Your task to perform on an android device: visit the assistant section in the google photos Image 0: 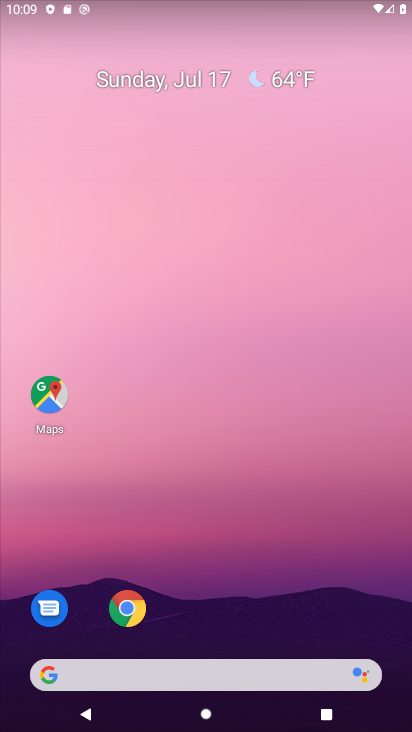
Step 0: drag from (386, 705) to (287, 63)
Your task to perform on an android device: visit the assistant section in the google photos Image 1: 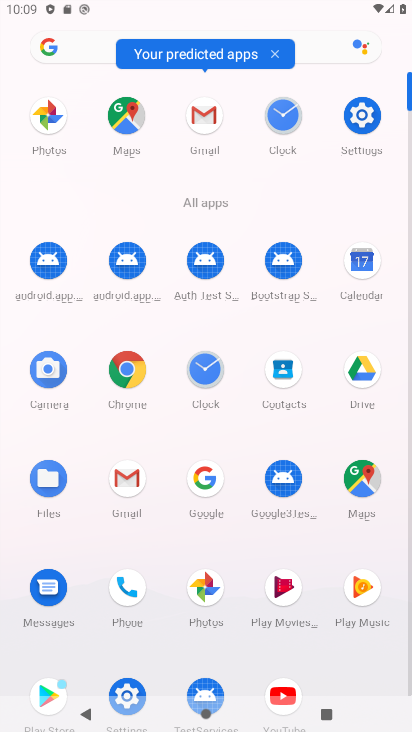
Step 1: click (202, 589)
Your task to perform on an android device: visit the assistant section in the google photos Image 2: 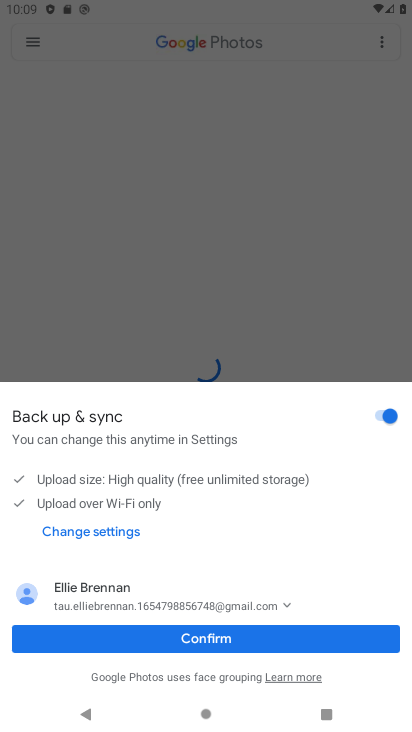
Step 2: click (316, 642)
Your task to perform on an android device: visit the assistant section in the google photos Image 3: 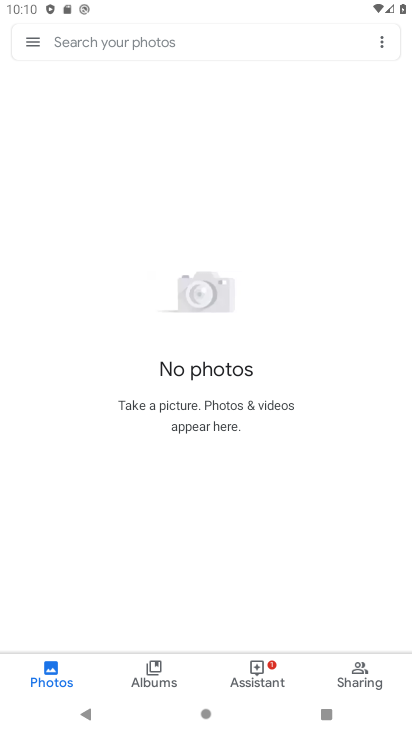
Step 3: click (261, 662)
Your task to perform on an android device: visit the assistant section in the google photos Image 4: 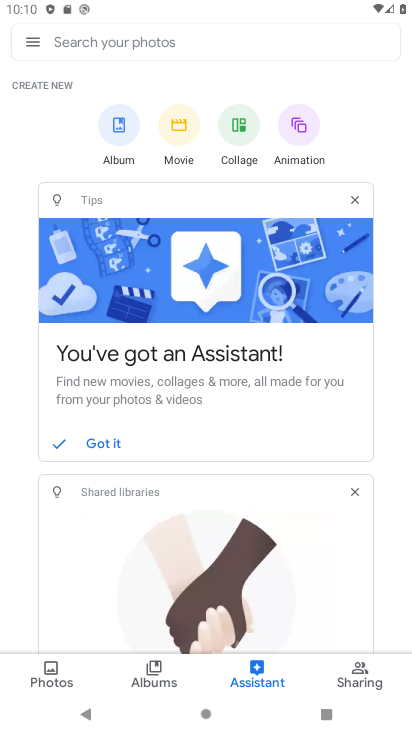
Step 4: task complete